Your task to perform on an android device: Open Chrome and go to the settings page Image 0: 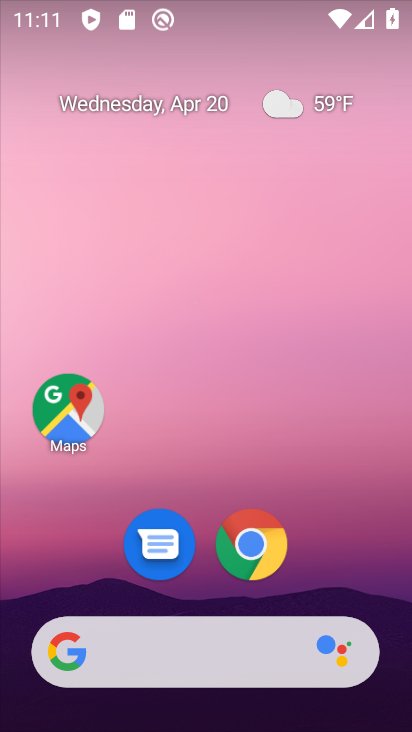
Step 0: click (275, 540)
Your task to perform on an android device: Open Chrome and go to the settings page Image 1: 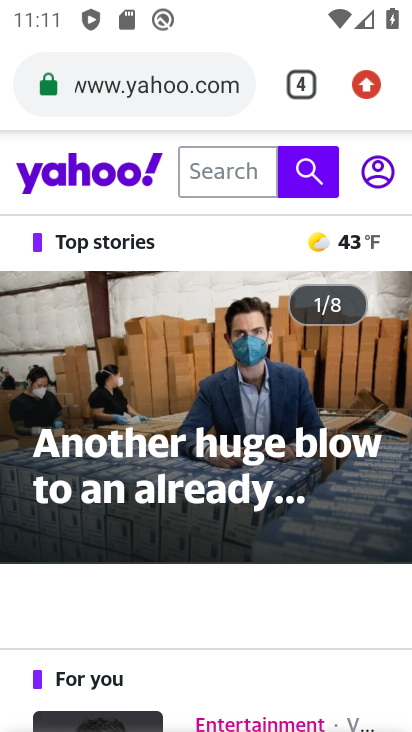
Step 1: click (380, 90)
Your task to perform on an android device: Open Chrome and go to the settings page Image 2: 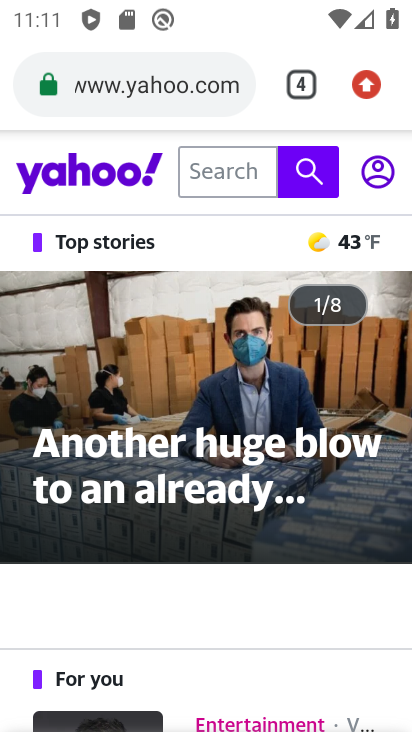
Step 2: click (373, 80)
Your task to perform on an android device: Open Chrome and go to the settings page Image 3: 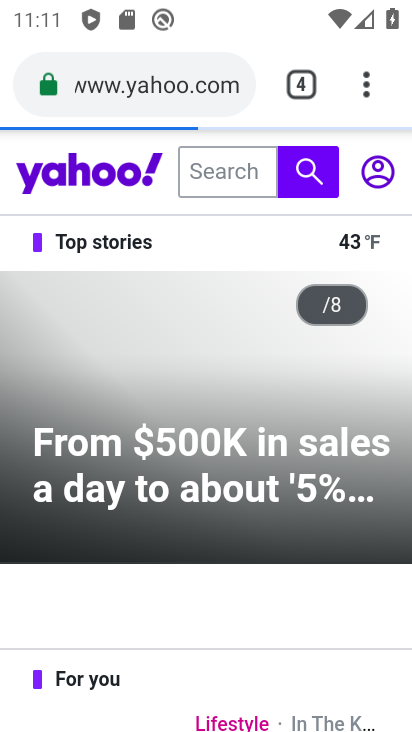
Step 3: click (373, 80)
Your task to perform on an android device: Open Chrome and go to the settings page Image 4: 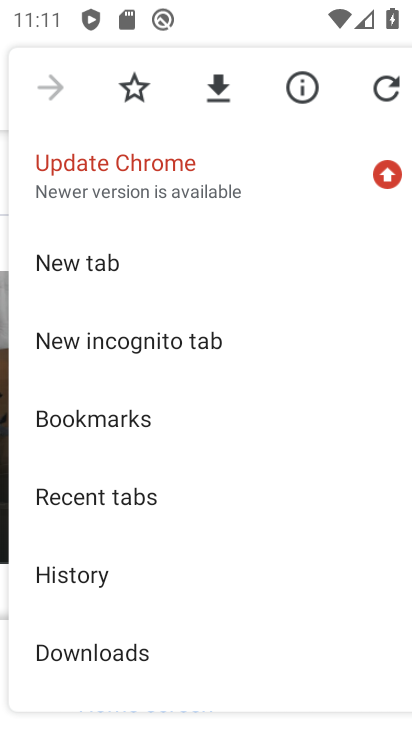
Step 4: drag from (225, 538) to (270, 160)
Your task to perform on an android device: Open Chrome and go to the settings page Image 5: 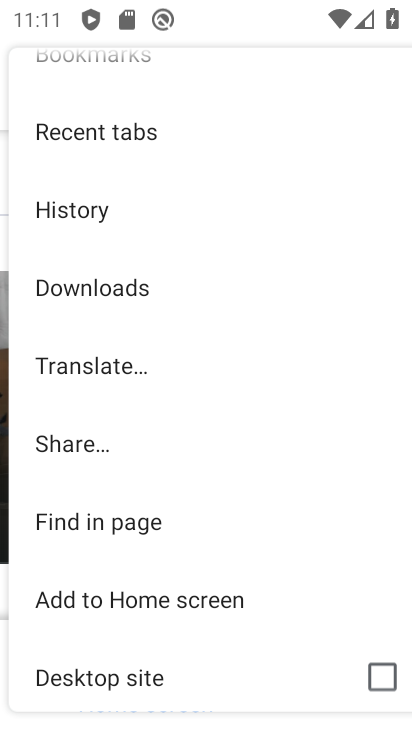
Step 5: drag from (270, 590) to (273, 207)
Your task to perform on an android device: Open Chrome and go to the settings page Image 6: 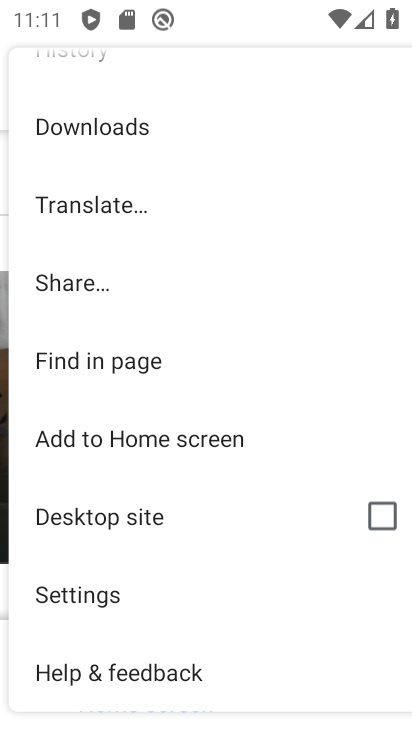
Step 6: click (148, 579)
Your task to perform on an android device: Open Chrome and go to the settings page Image 7: 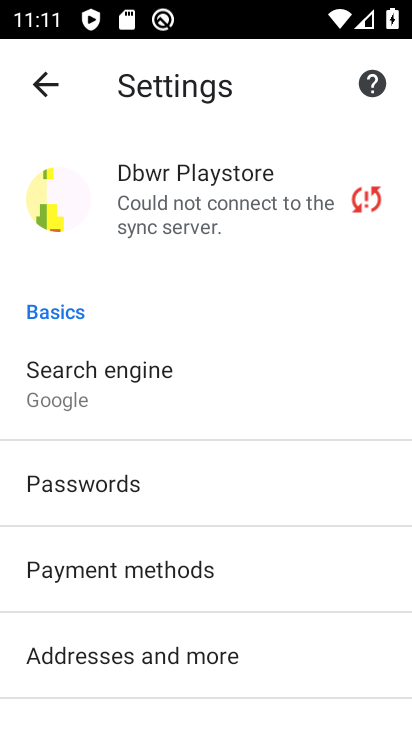
Step 7: task complete